Your task to perform on an android device: allow notifications from all sites in the chrome app Image 0: 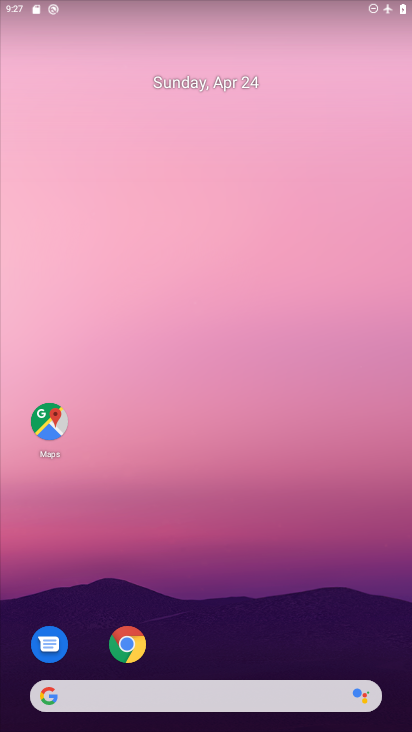
Step 0: drag from (221, 673) to (212, 68)
Your task to perform on an android device: allow notifications from all sites in the chrome app Image 1: 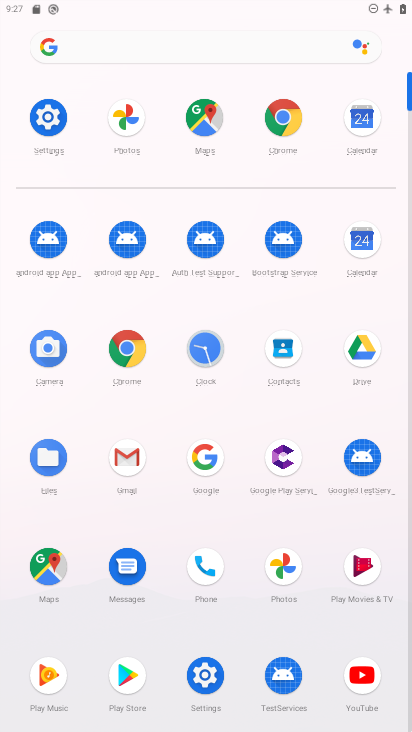
Step 1: click (116, 350)
Your task to perform on an android device: allow notifications from all sites in the chrome app Image 2: 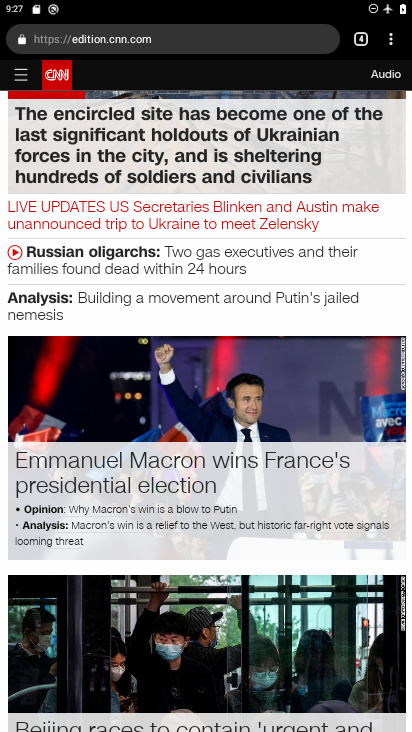
Step 2: click (392, 36)
Your task to perform on an android device: allow notifications from all sites in the chrome app Image 3: 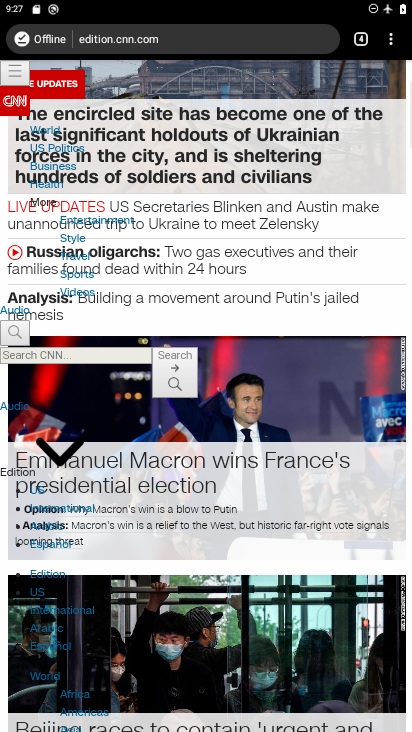
Step 3: drag from (384, 32) to (236, 475)
Your task to perform on an android device: allow notifications from all sites in the chrome app Image 4: 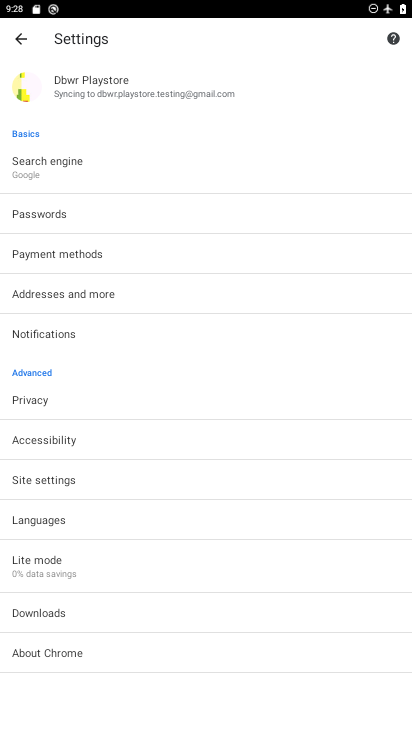
Step 4: click (46, 483)
Your task to perform on an android device: allow notifications from all sites in the chrome app Image 5: 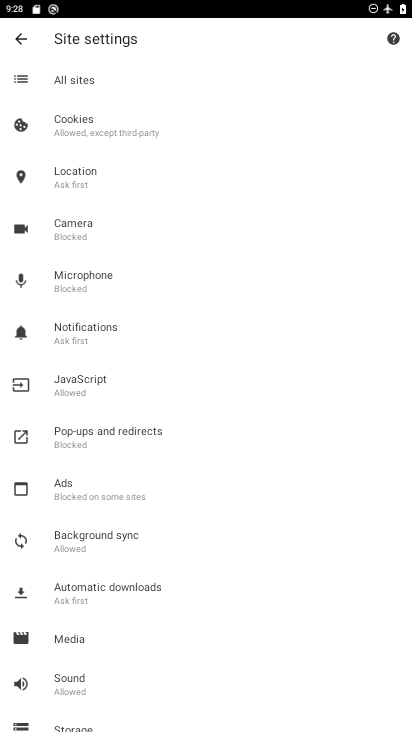
Step 5: click (80, 331)
Your task to perform on an android device: allow notifications from all sites in the chrome app Image 6: 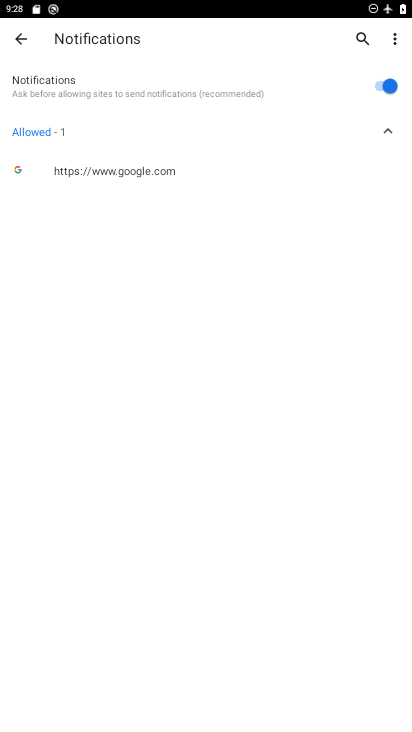
Step 6: task complete